Your task to perform on an android device: open device folders in google photos Image 0: 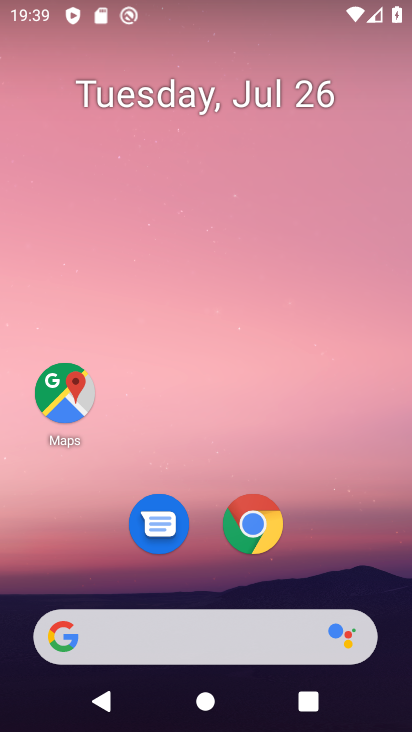
Step 0: drag from (194, 651) to (411, 140)
Your task to perform on an android device: open device folders in google photos Image 1: 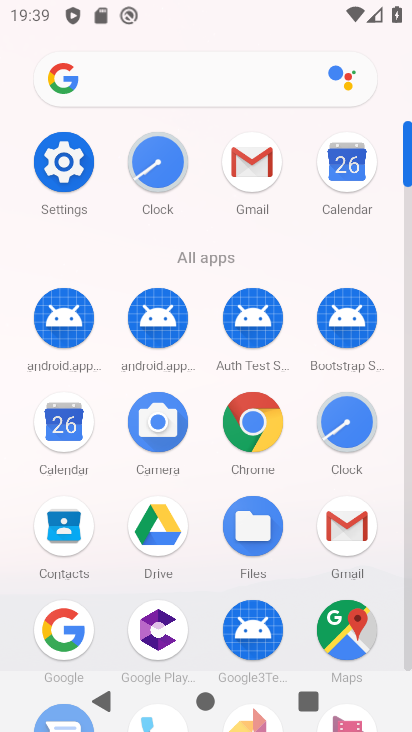
Step 1: drag from (206, 651) to (336, 133)
Your task to perform on an android device: open device folders in google photos Image 2: 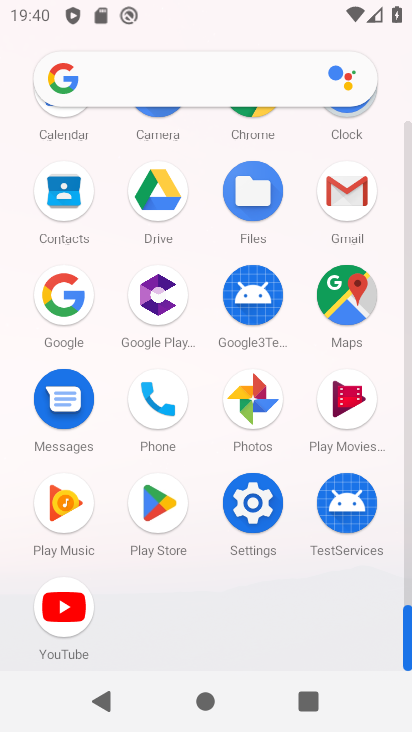
Step 2: click (260, 404)
Your task to perform on an android device: open device folders in google photos Image 3: 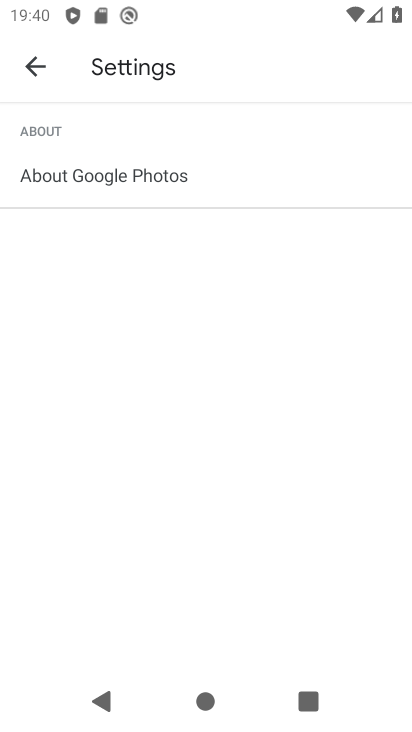
Step 3: click (44, 75)
Your task to perform on an android device: open device folders in google photos Image 4: 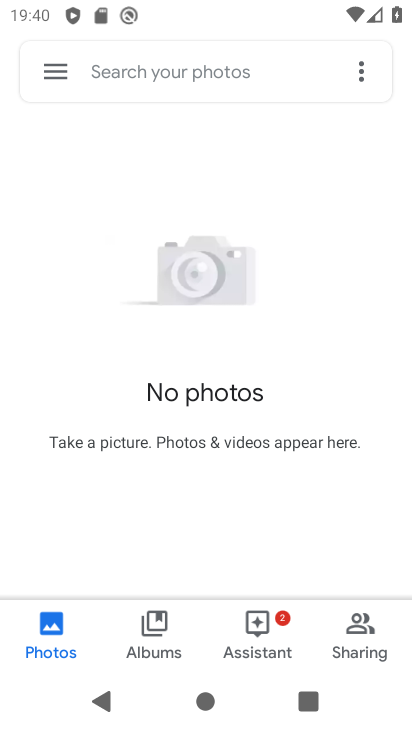
Step 4: click (69, 69)
Your task to perform on an android device: open device folders in google photos Image 5: 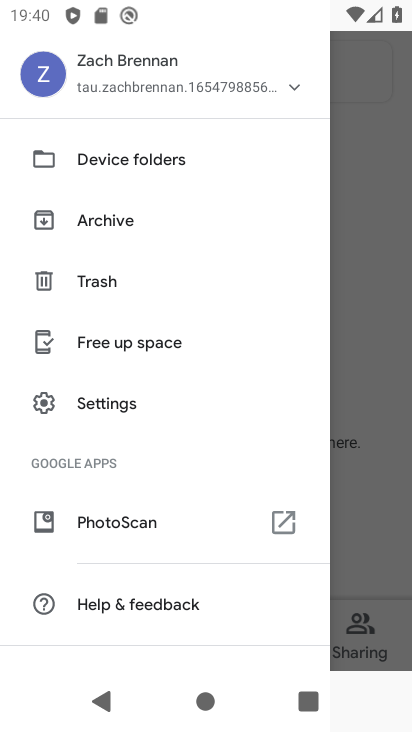
Step 5: click (93, 157)
Your task to perform on an android device: open device folders in google photos Image 6: 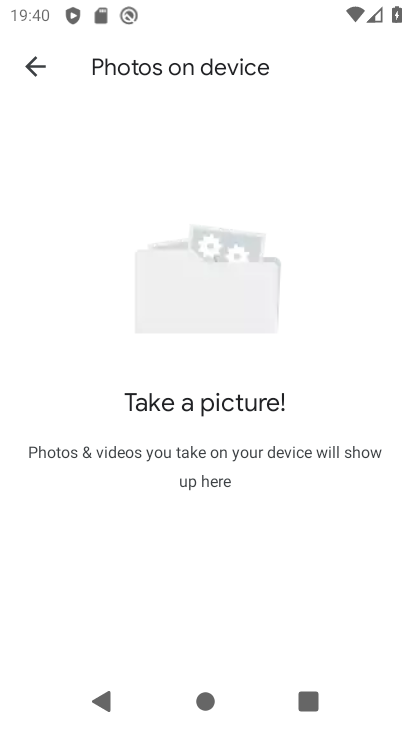
Step 6: task complete